Your task to perform on an android device: Go to Maps Image 0: 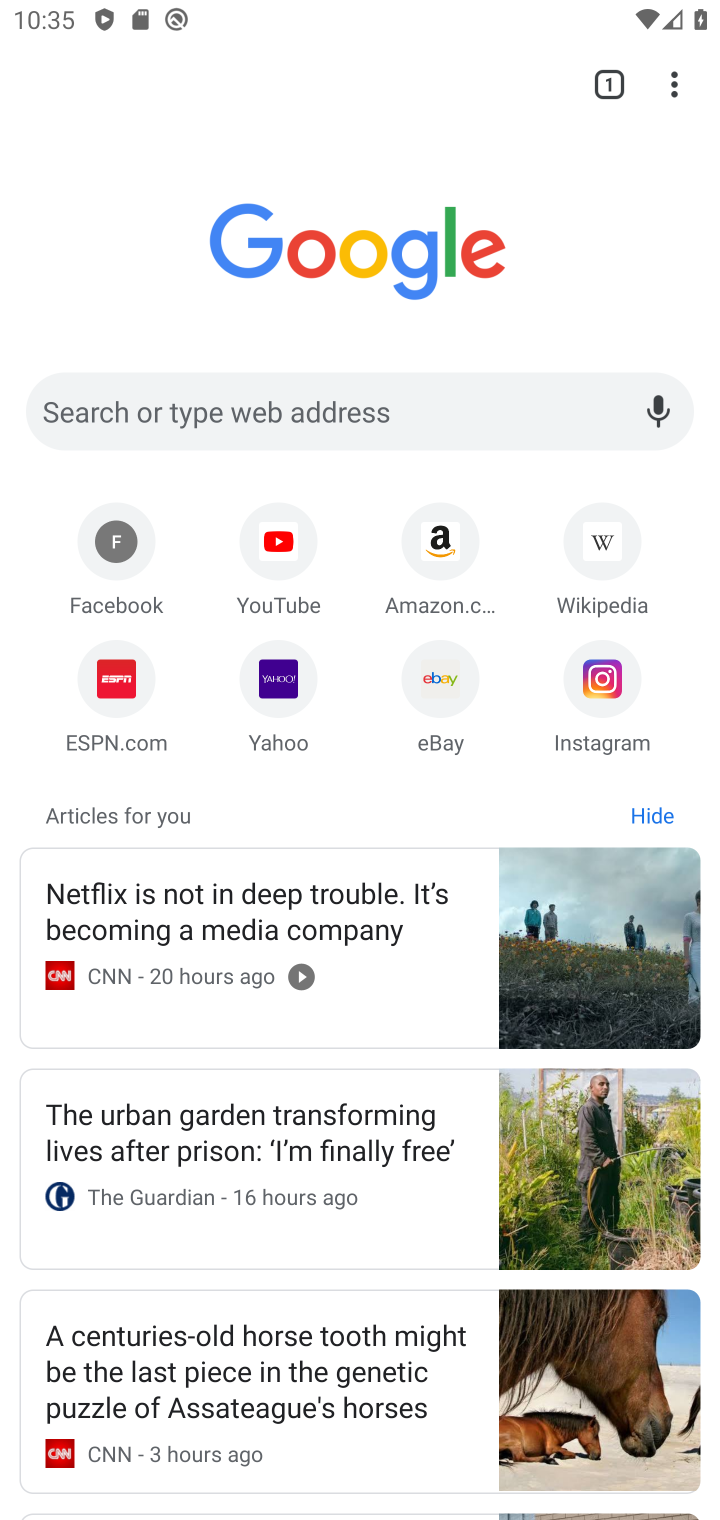
Step 0: press back button
Your task to perform on an android device: Go to Maps Image 1: 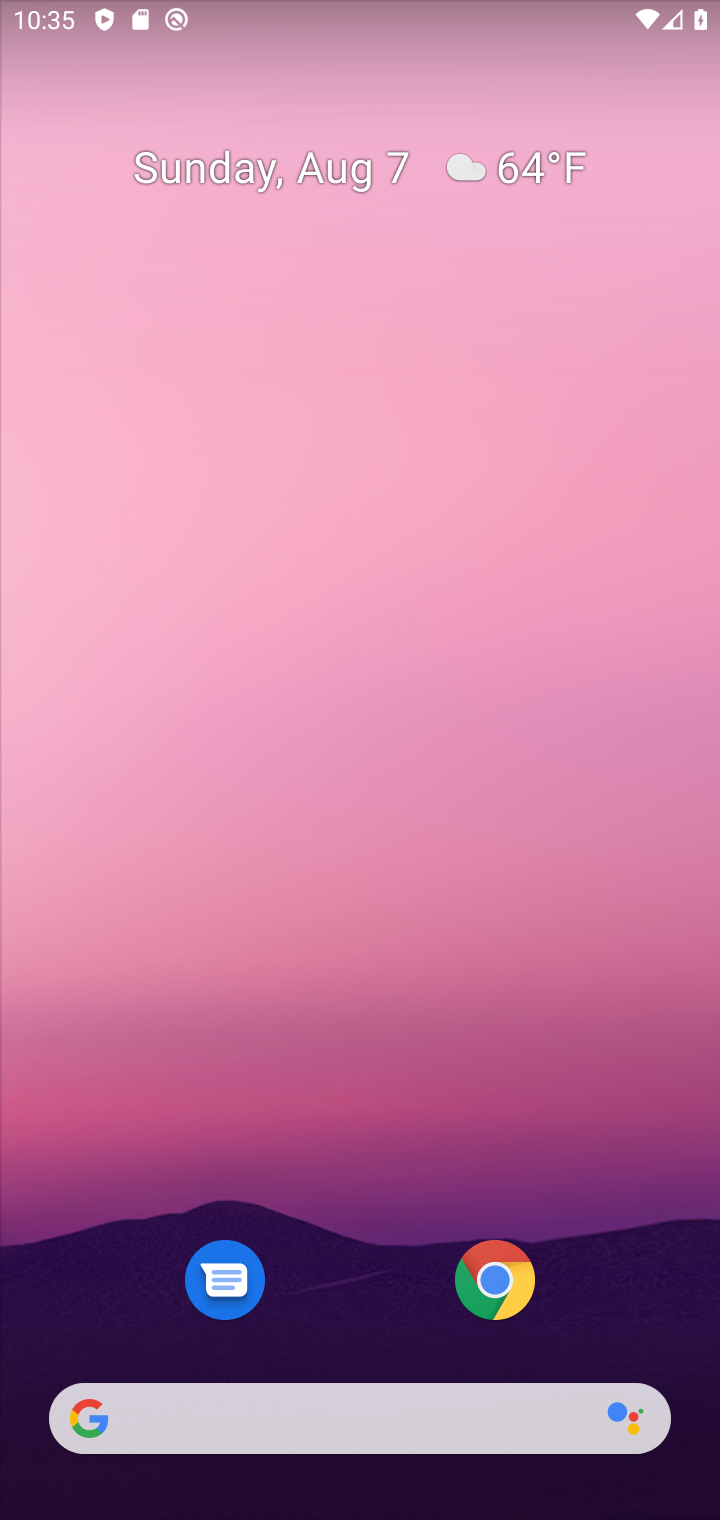
Step 1: drag from (348, 1279) to (354, 1)
Your task to perform on an android device: Go to Maps Image 2: 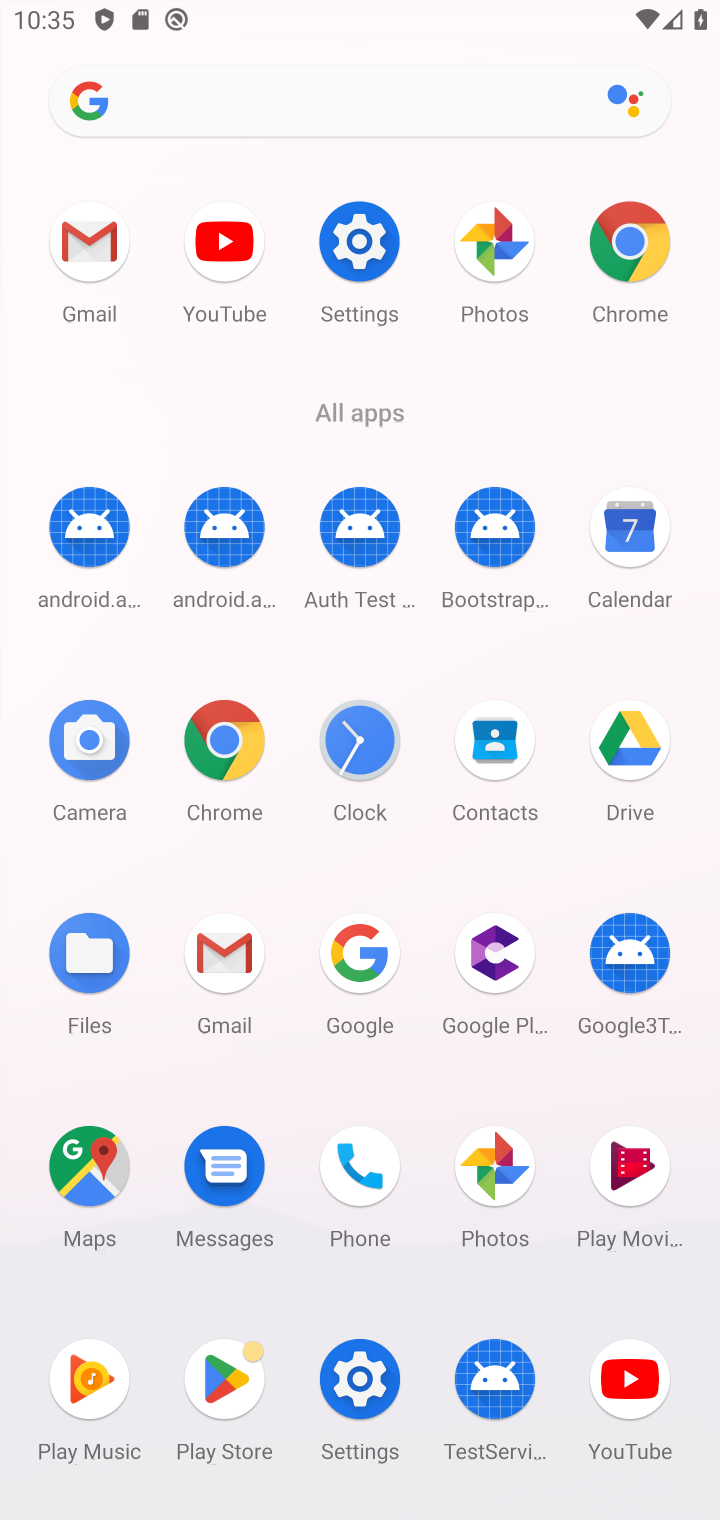
Step 2: click (93, 1174)
Your task to perform on an android device: Go to Maps Image 3: 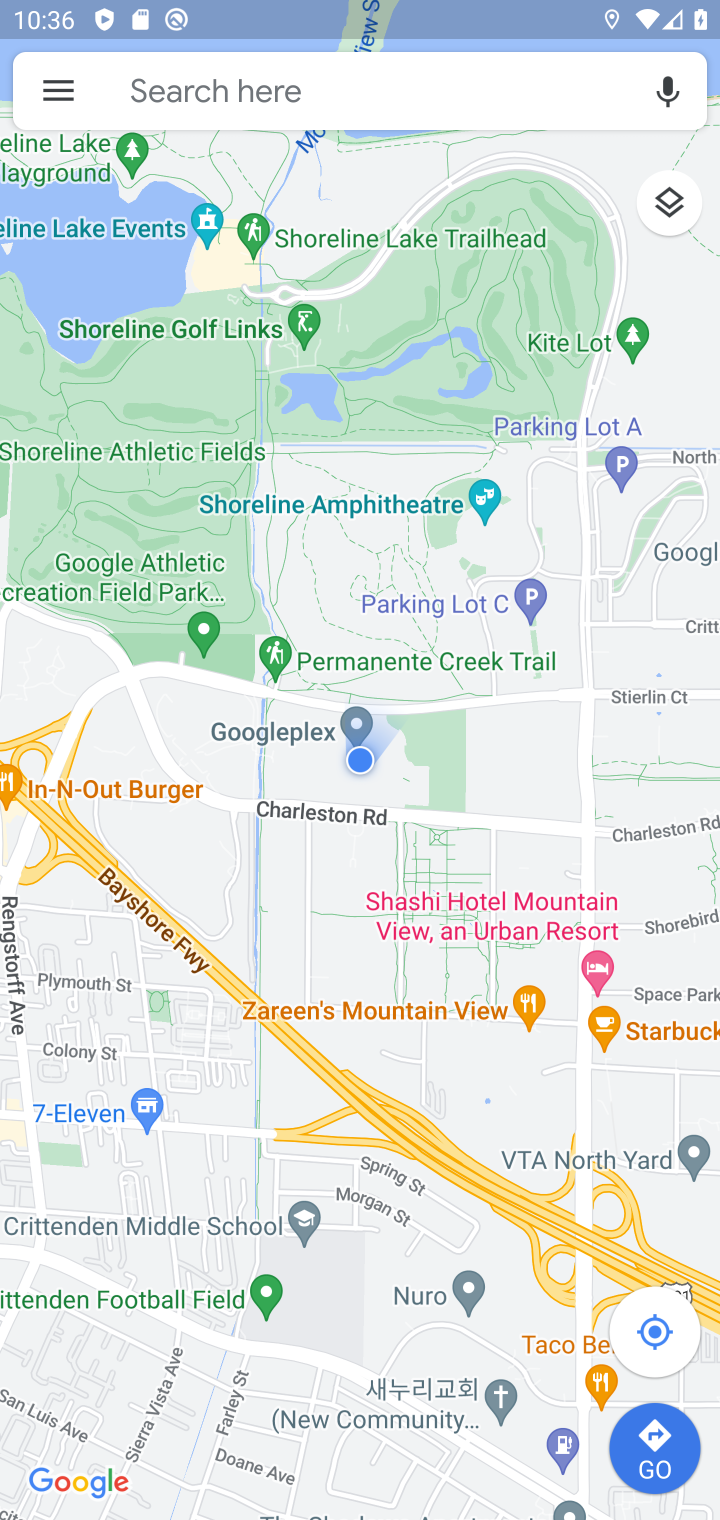
Step 3: task complete